Your task to perform on an android device: see tabs open on other devices in the chrome app Image 0: 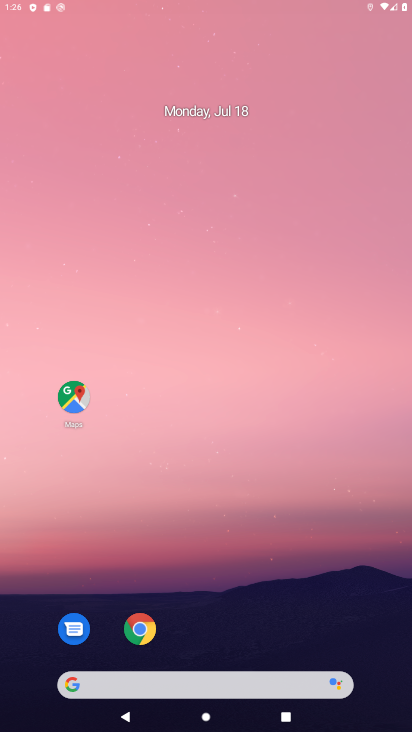
Step 0: press home button
Your task to perform on an android device: see tabs open on other devices in the chrome app Image 1: 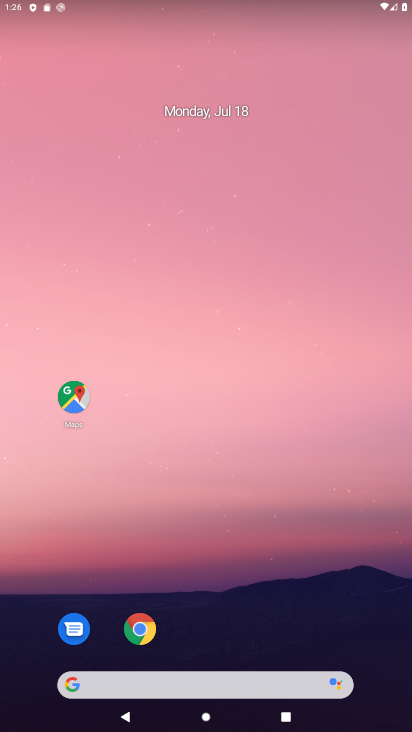
Step 1: click (149, 626)
Your task to perform on an android device: see tabs open on other devices in the chrome app Image 2: 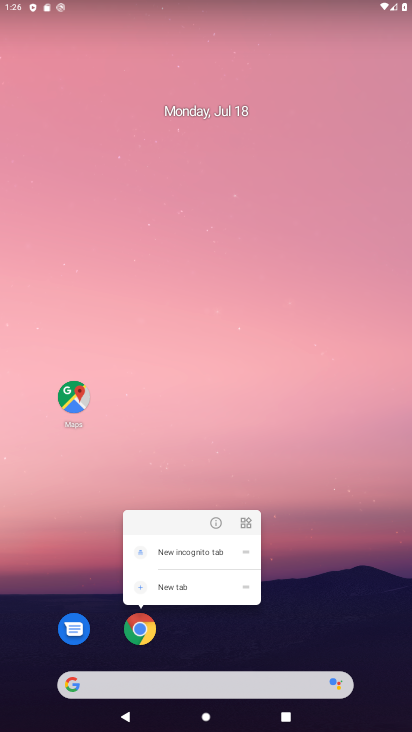
Step 2: click (146, 624)
Your task to perform on an android device: see tabs open on other devices in the chrome app Image 3: 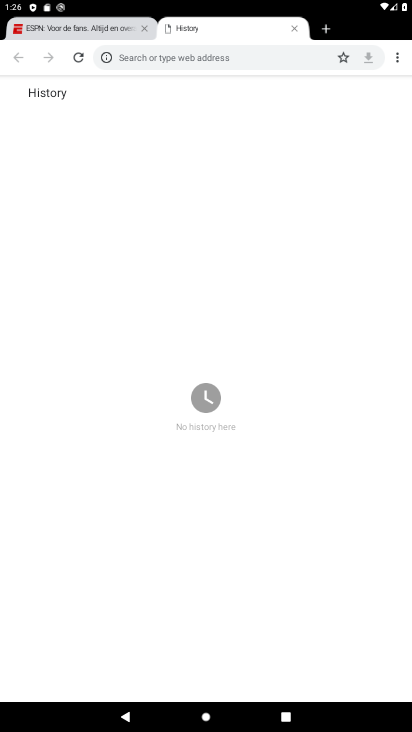
Step 3: click (396, 60)
Your task to perform on an android device: see tabs open on other devices in the chrome app Image 4: 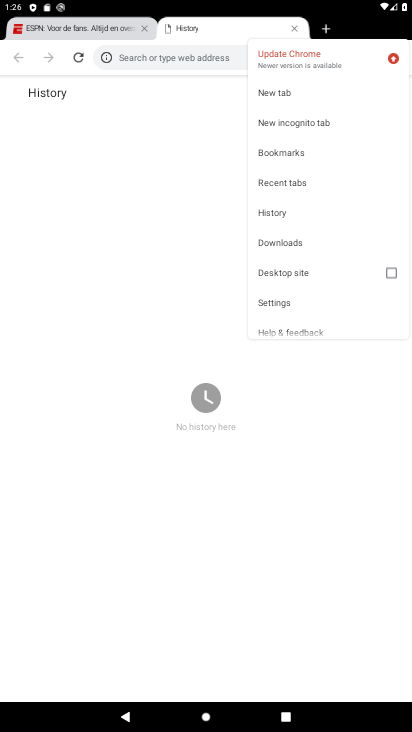
Step 4: click (292, 181)
Your task to perform on an android device: see tabs open on other devices in the chrome app Image 5: 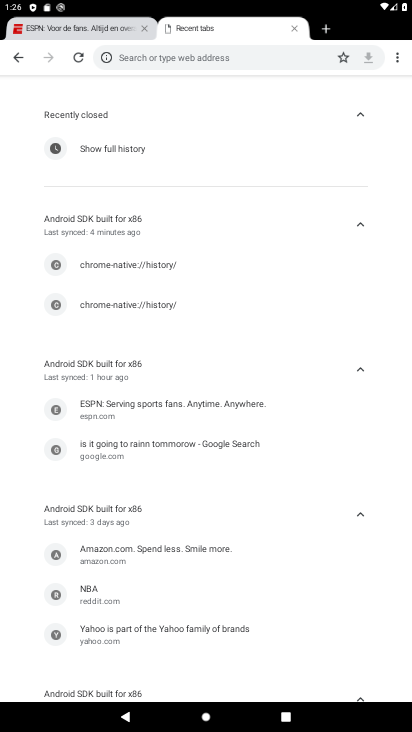
Step 5: task complete